Your task to perform on an android device: open app "ZOOM Cloud Meetings" (install if not already installed) Image 0: 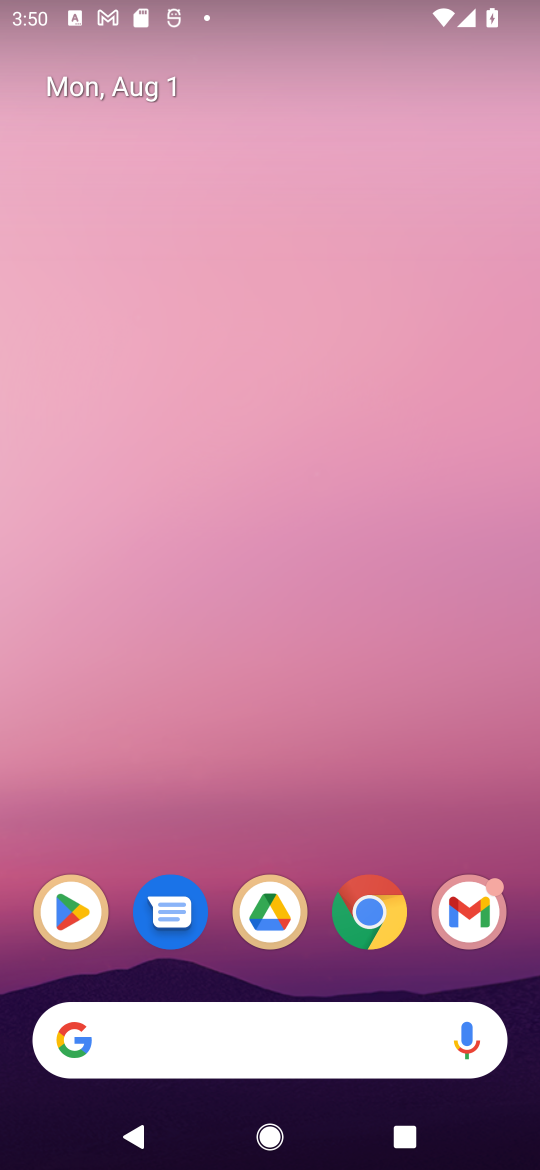
Step 0: click (44, 911)
Your task to perform on an android device: open app "ZOOM Cloud Meetings" (install if not already installed) Image 1: 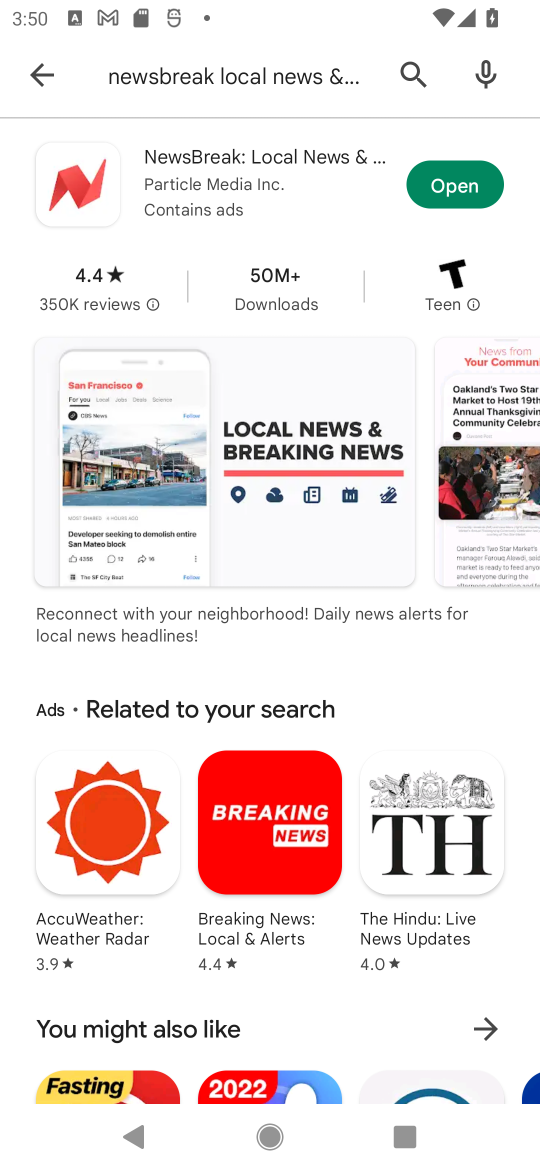
Step 1: click (410, 79)
Your task to perform on an android device: open app "ZOOM Cloud Meetings" (install if not already installed) Image 2: 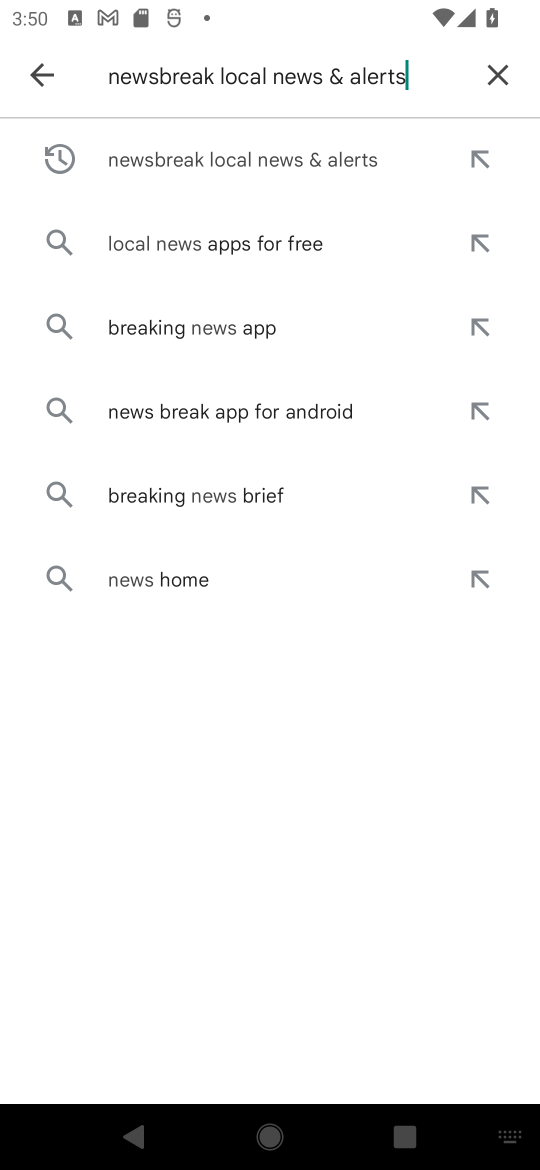
Step 2: click (484, 82)
Your task to perform on an android device: open app "ZOOM Cloud Meetings" (install if not already installed) Image 3: 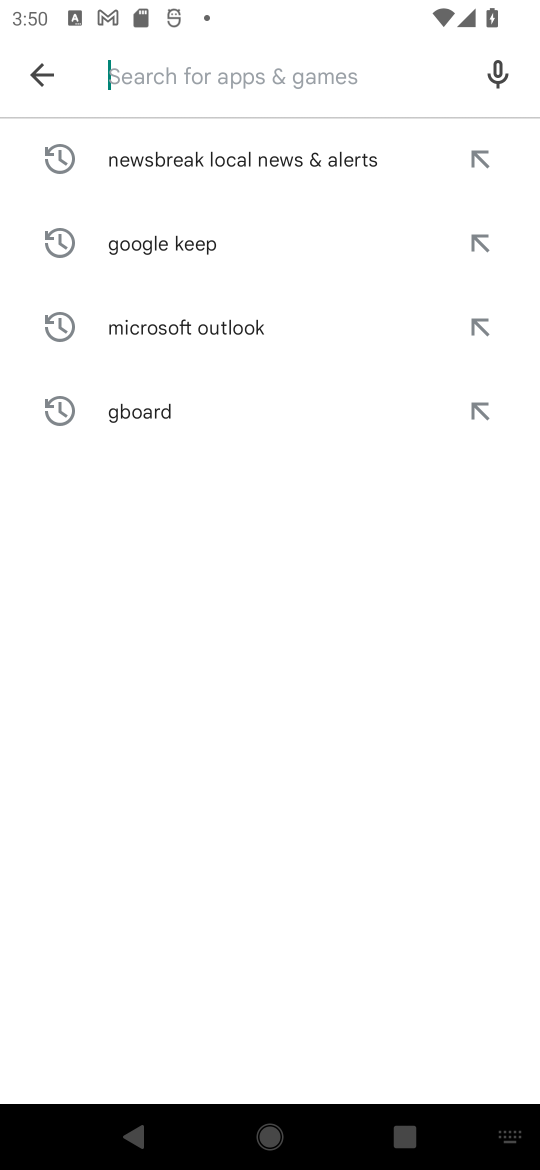
Step 3: type "ZOOM Cloud Meetings"
Your task to perform on an android device: open app "ZOOM Cloud Meetings" (install if not already installed) Image 4: 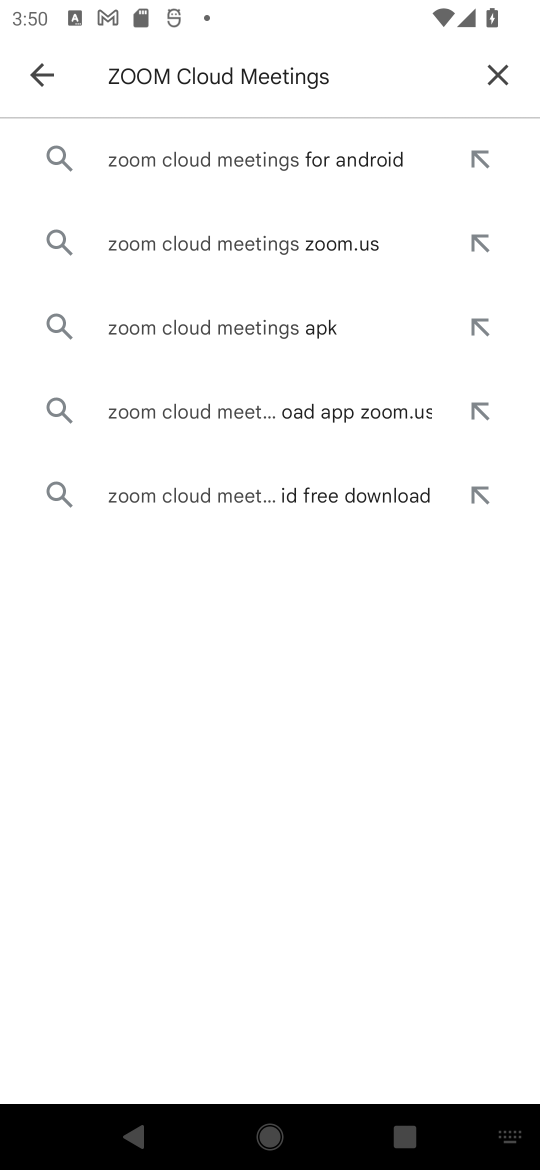
Step 4: click (231, 168)
Your task to perform on an android device: open app "ZOOM Cloud Meetings" (install if not already installed) Image 5: 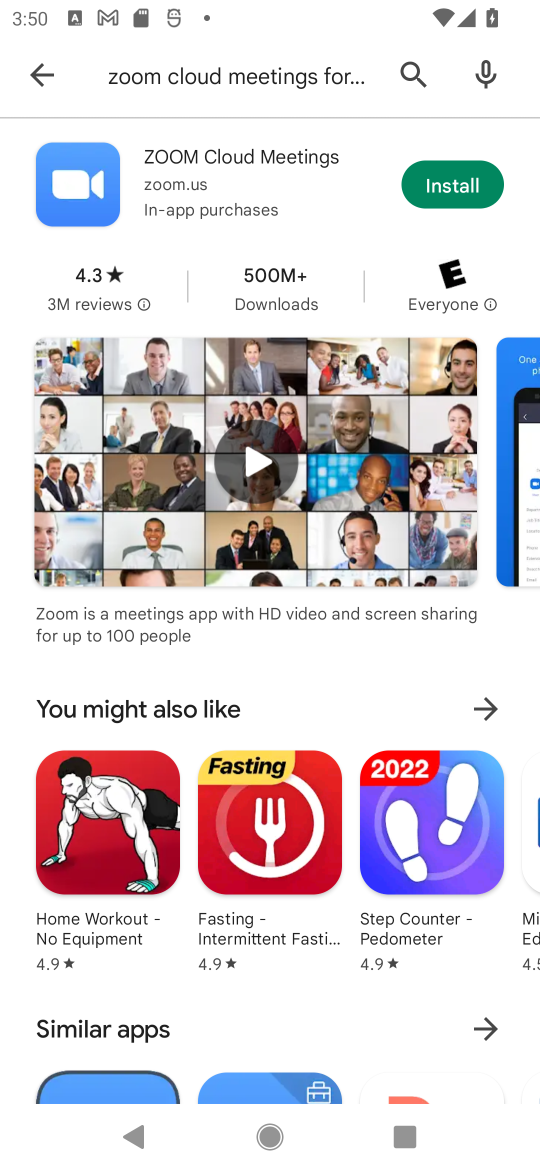
Step 5: click (516, 181)
Your task to perform on an android device: open app "ZOOM Cloud Meetings" (install if not already installed) Image 6: 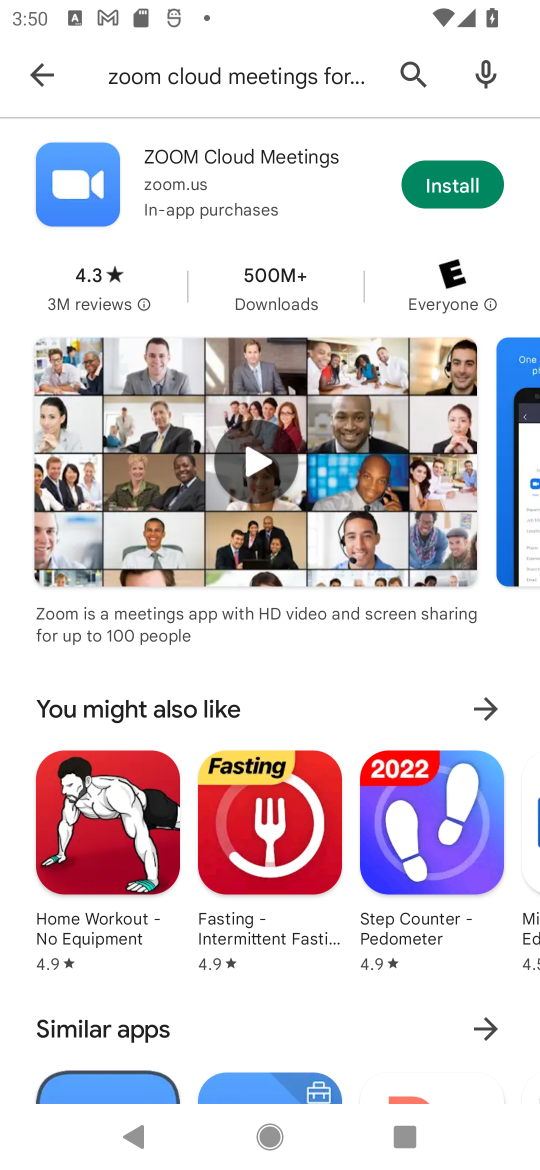
Step 6: click (479, 190)
Your task to perform on an android device: open app "ZOOM Cloud Meetings" (install if not already installed) Image 7: 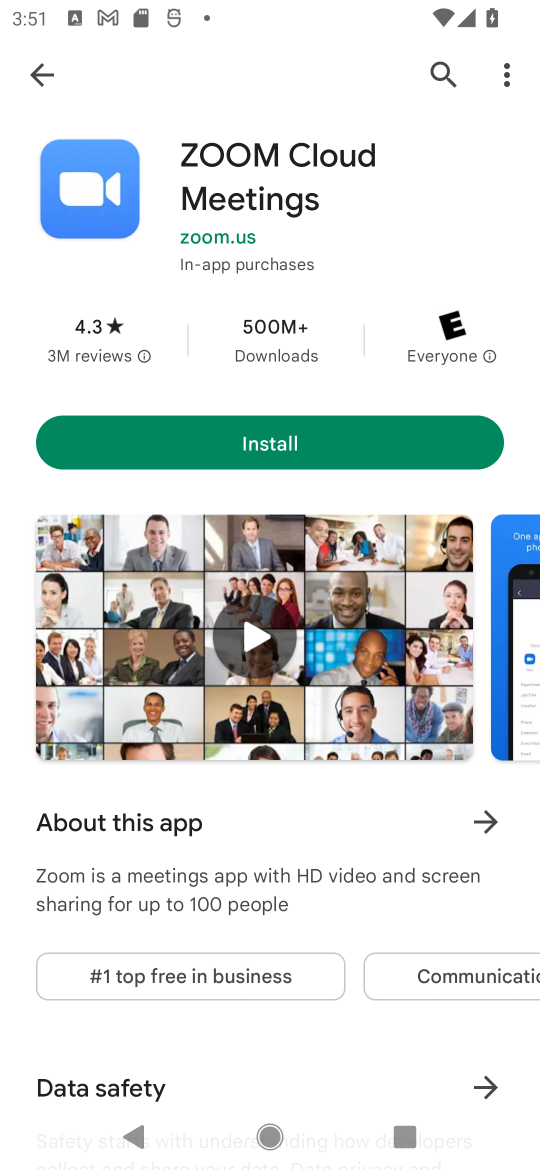
Step 7: click (295, 443)
Your task to perform on an android device: open app "ZOOM Cloud Meetings" (install if not already installed) Image 8: 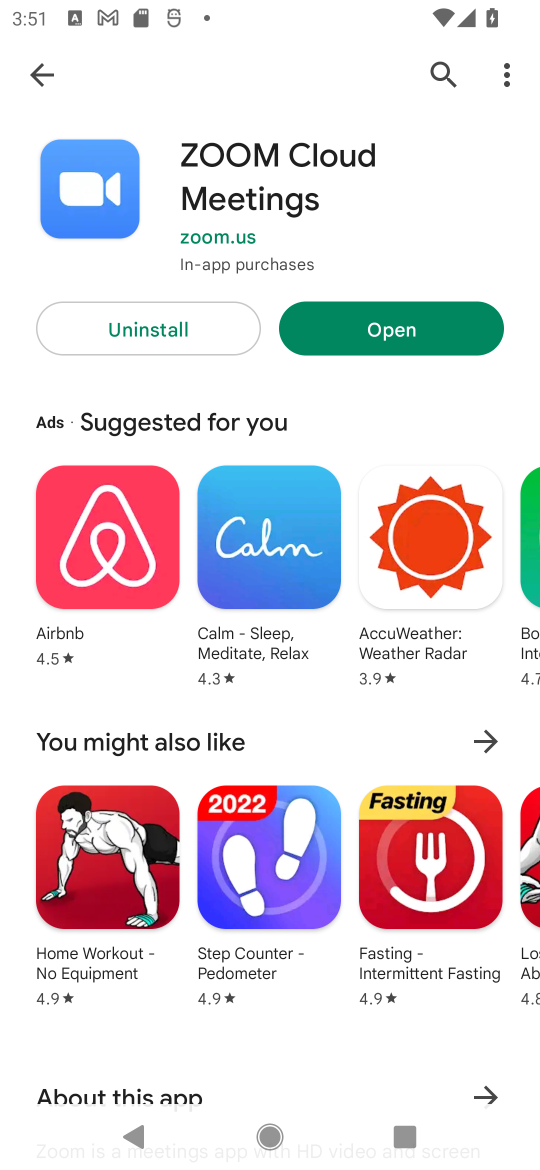
Step 8: click (409, 326)
Your task to perform on an android device: open app "ZOOM Cloud Meetings" (install if not already installed) Image 9: 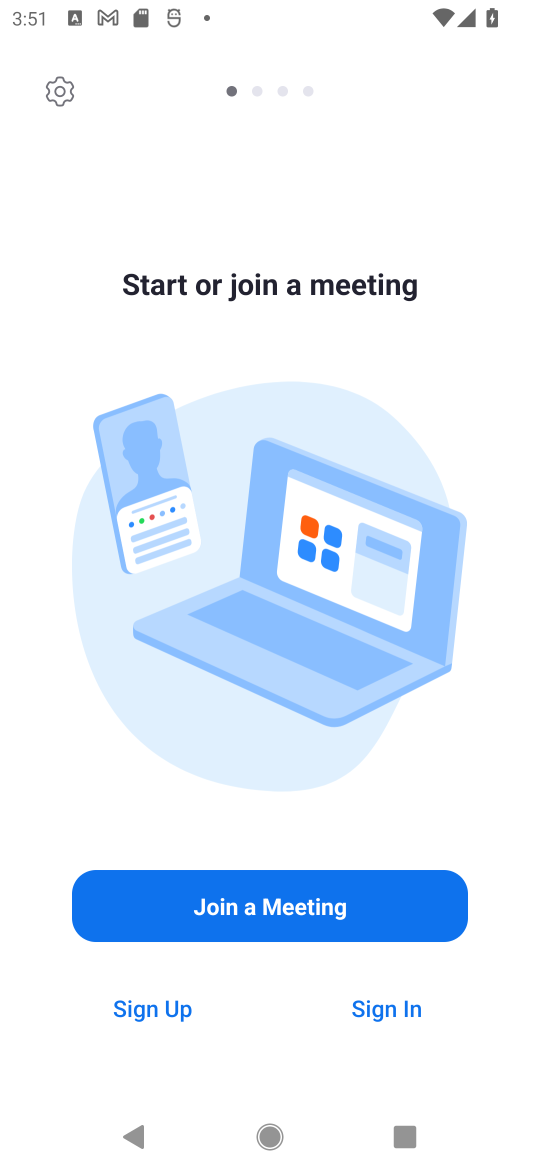
Step 9: task complete